Your task to perform on an android device: change notification settings in the gmail app Image 0: 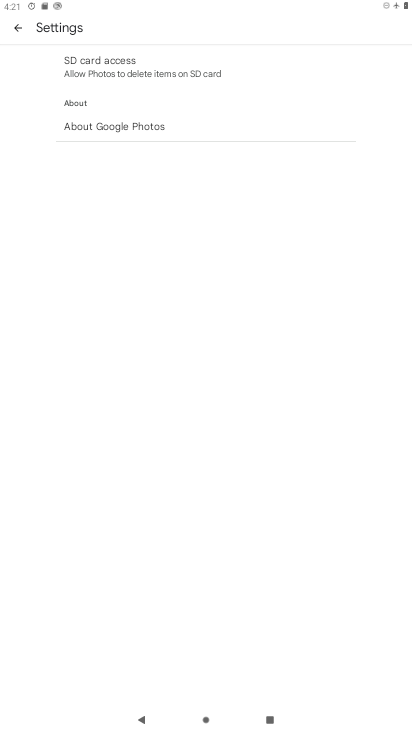
Step 0: press home button
Your task to perform on an android device: change notification settings in the gmail app Image 1: 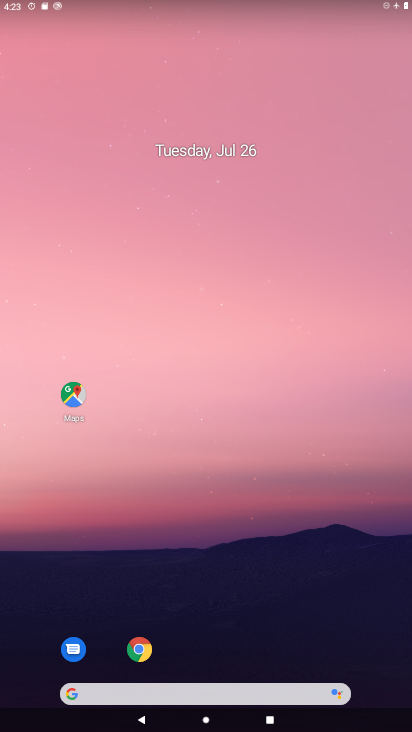
Step 1: drag from (323, 631) to (149, 54)
Your task to perform on an android device: change notification settings in the gmail app Image 2: 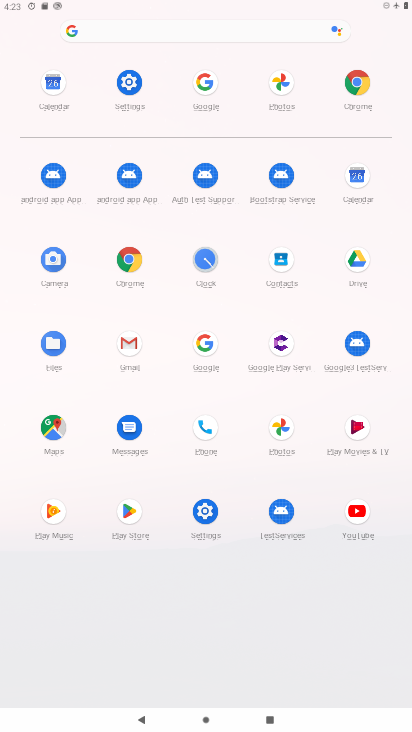
Step 2: click (134, 346)
Your task to perform on an android device: change notification settings in the gmail app Image 3: 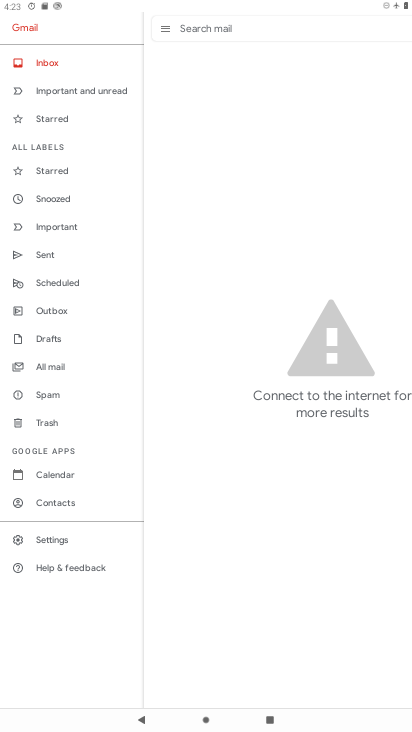
Step 3: task complete